Your task to perform on an android device: Open settings on Google Maps Image 0: 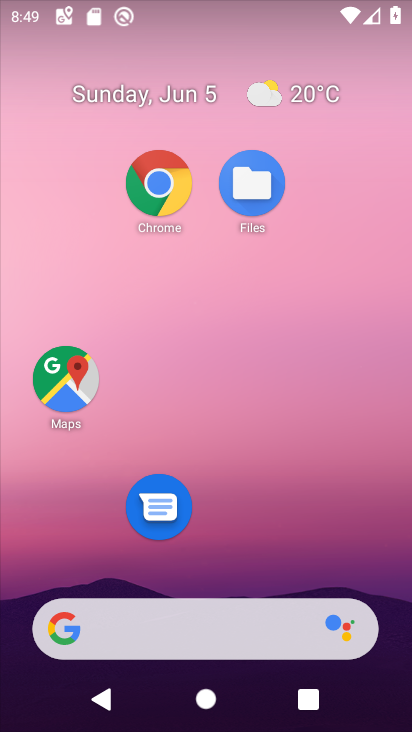
Step 0: drag from (221, 591) to (160, 50)
Your task to perform on an android device: Open settings on Google Maps Image 1: 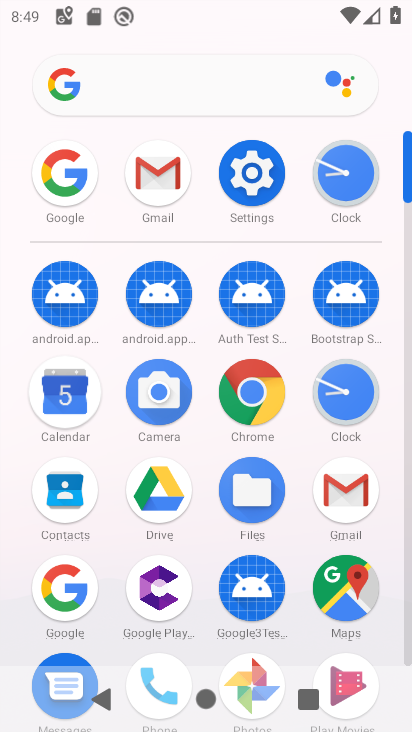
Step 1: click (340, 577)
Your task to perform on an android device: Open settings on Google Maps Image 2: 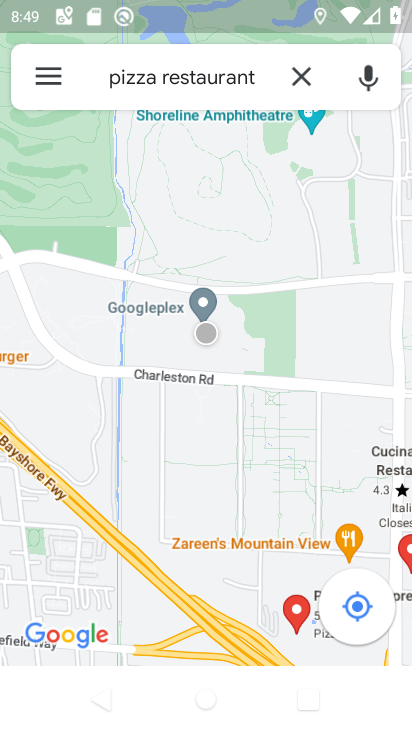
Step 2: click (48, 80)
Your task to perform on an android device: Open settings on Google Maps Image 3: 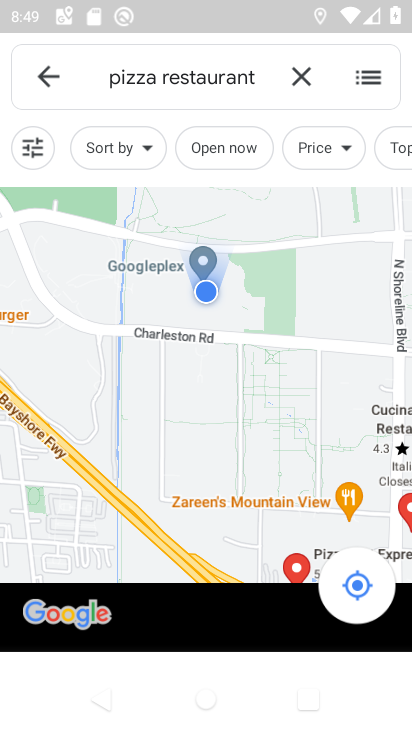
Step 3: click (48, 80)
Your task to perform on an android device: Open settings on Google Maps Image 4: 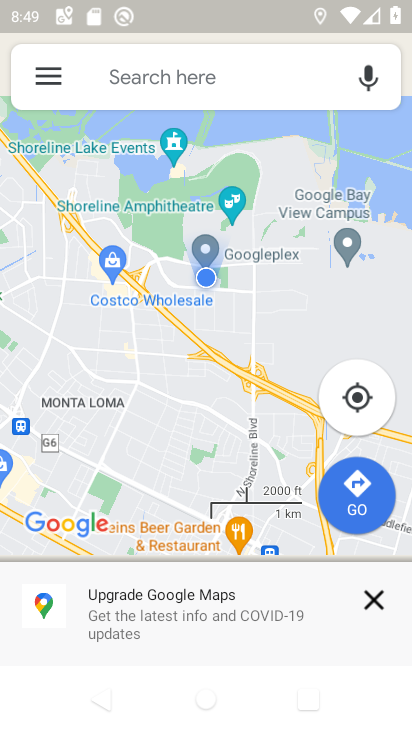
Step 4: click (48, 80)
Your task to perform on an android device: Open settings on Google Maps Image 5: 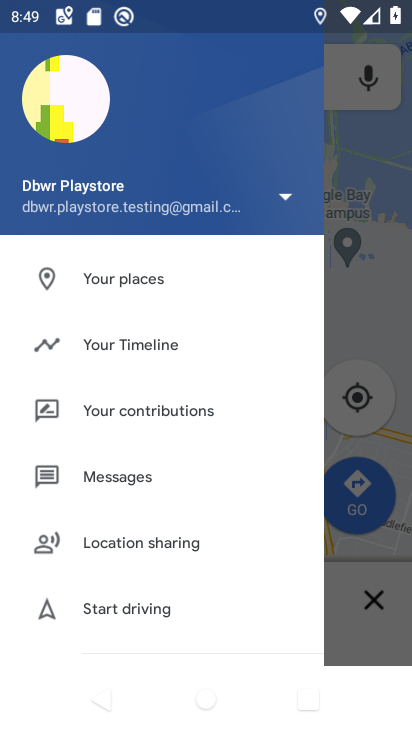
Step 5: drag from (130, 519) to (59, 34)
Your task to perform on an android device: Open settings on Google Maps Image 6: 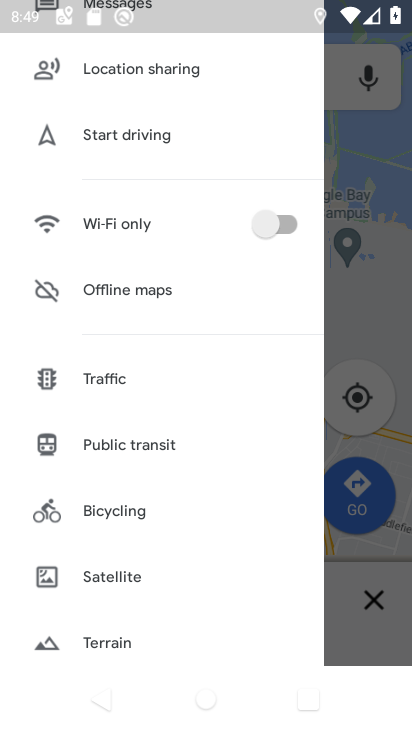
Step 6: drag from (121, 500) to (88, 49)
Your task to perform on an android device: Open settings on Google Maps Image 7: 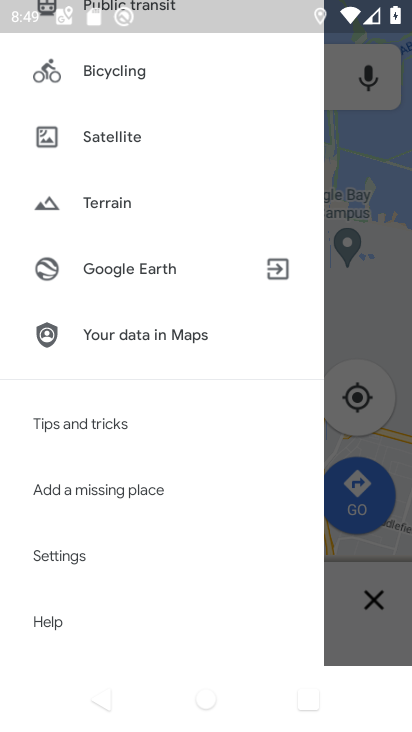
Step 7: click (75, 541)
Your task to perform on an android device: Open settings on Google Maps Image 8: 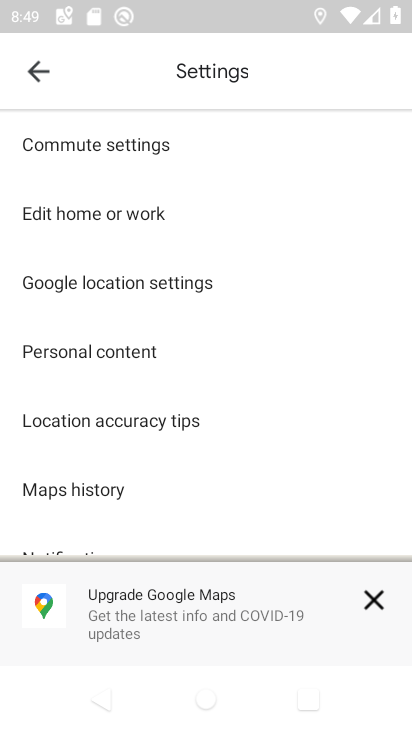
Step 8: task complete